Your task to perform on an android device: Show me the best 1080p monitor on Target.com Image 0: 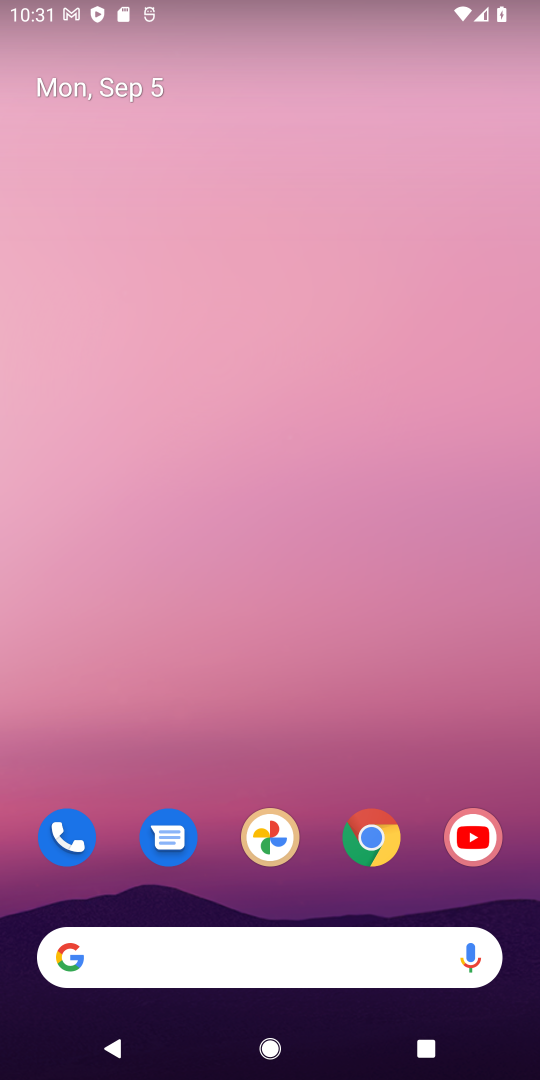
Step 0: drag from (317, 894) to (340, 37)
Your task to perform on an android device: Show me the best 1080p monitor on Target.com Image 1: 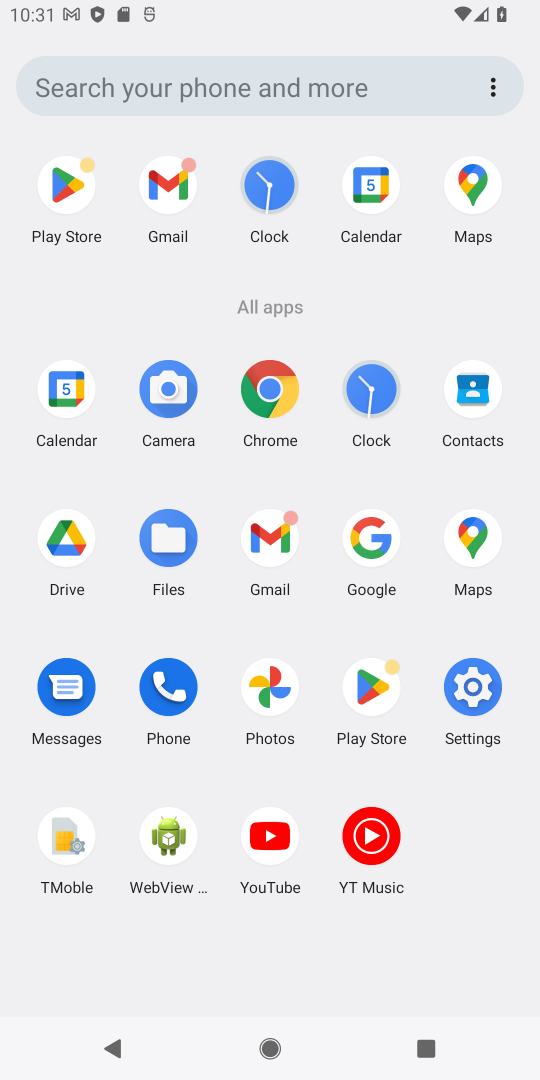
Step 1: click (269, 382)
Your task to perform on an android device: Show me the best 1080p monitor on Target.com Image 2: 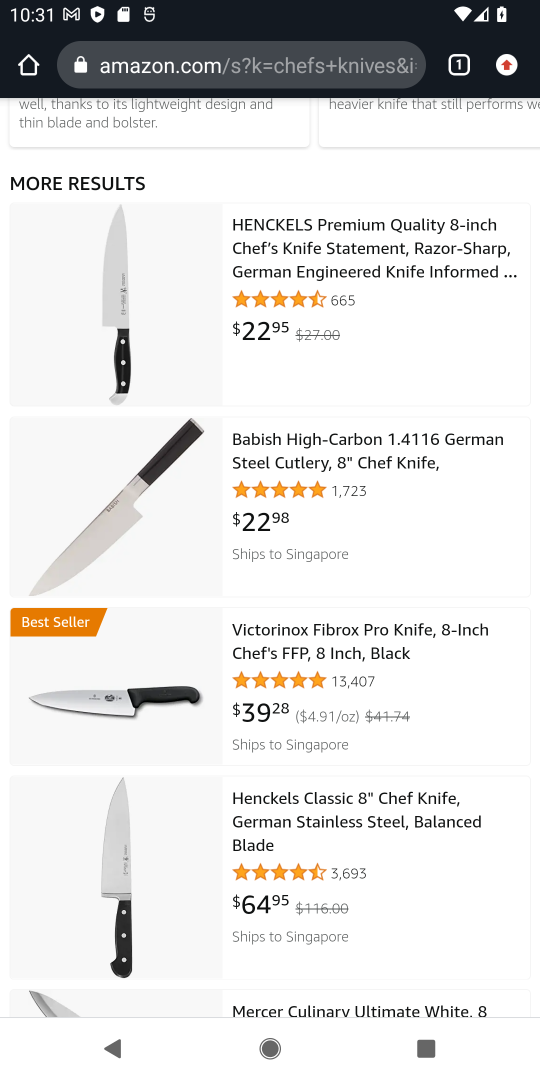
Step 2: click (219, 66)
Your task to perform on an android device: Show me the best 1080p monitor on Target.com Image 3: 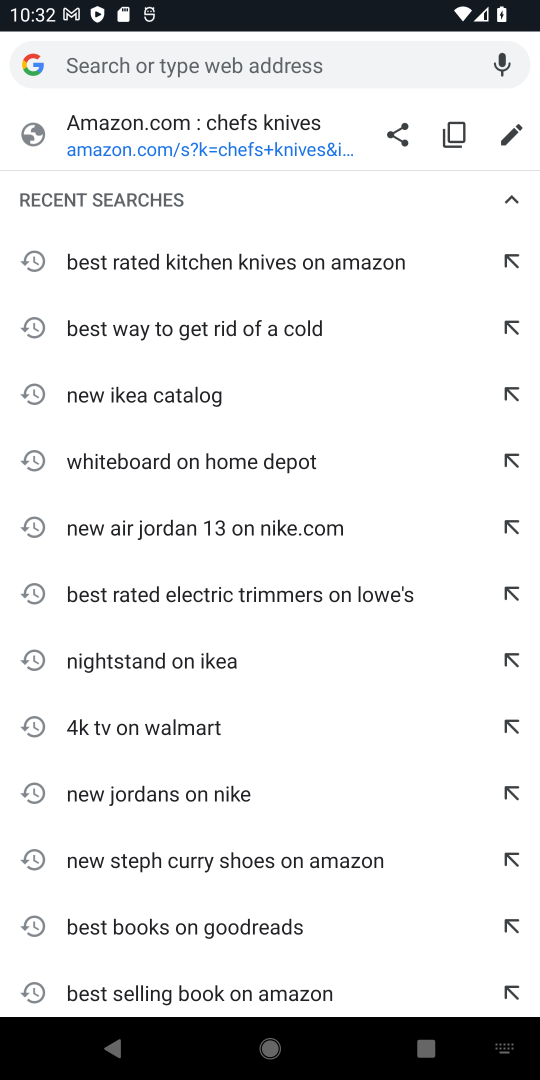
Step 3: type "best 1080p monitor on Target.com"
Your task to perform on an android device: Show me the best 1080p monitor on Target.com Image 4: 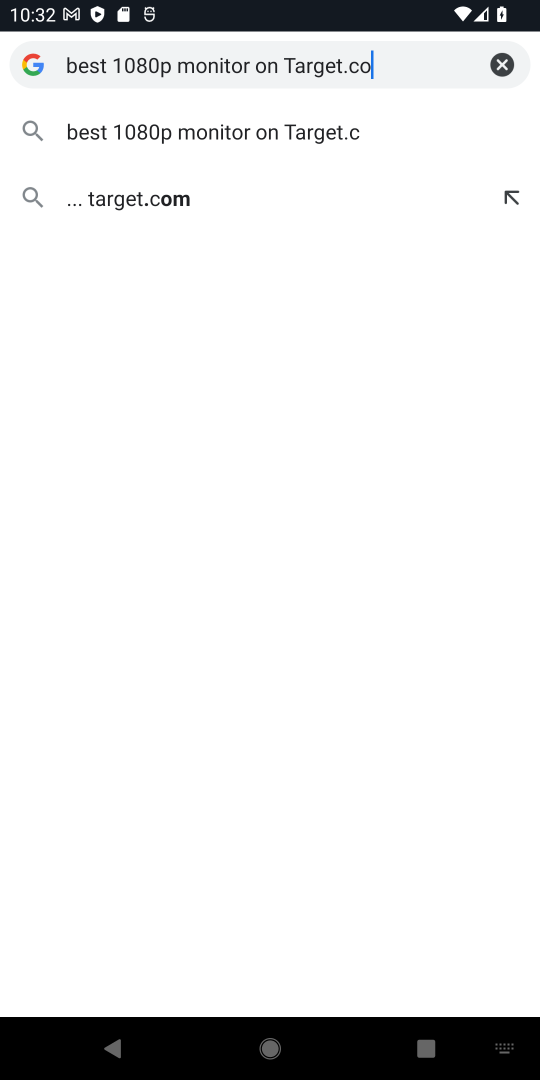
Step 4: type ""
Your task to perform on an android device: Show me the best 1080p monitor on Target.com Image 5: 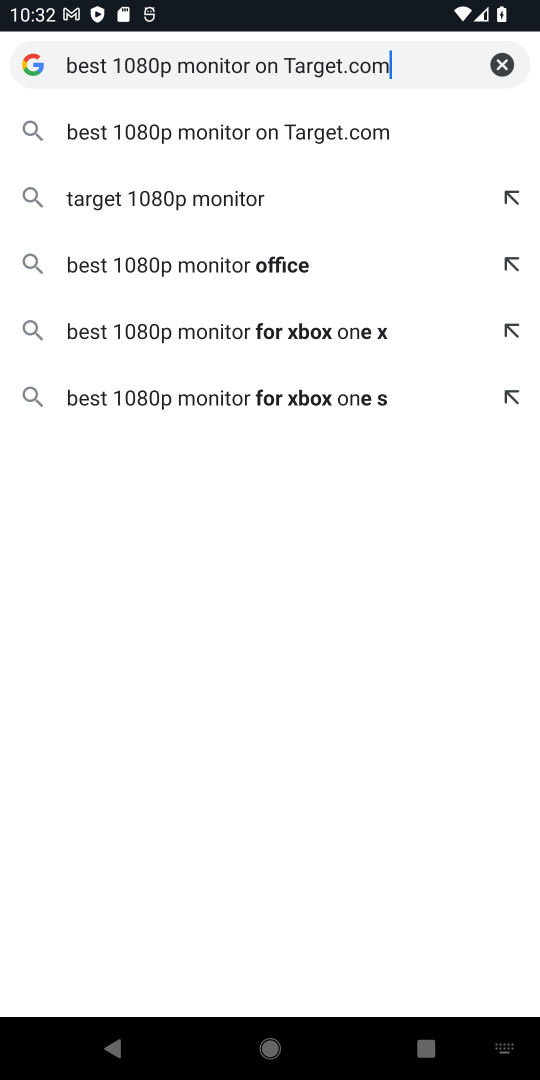
Step 5: click (284, 148)
Your task to perform on an android device: Show me the best 1080p monitor on Target.com Image 6: 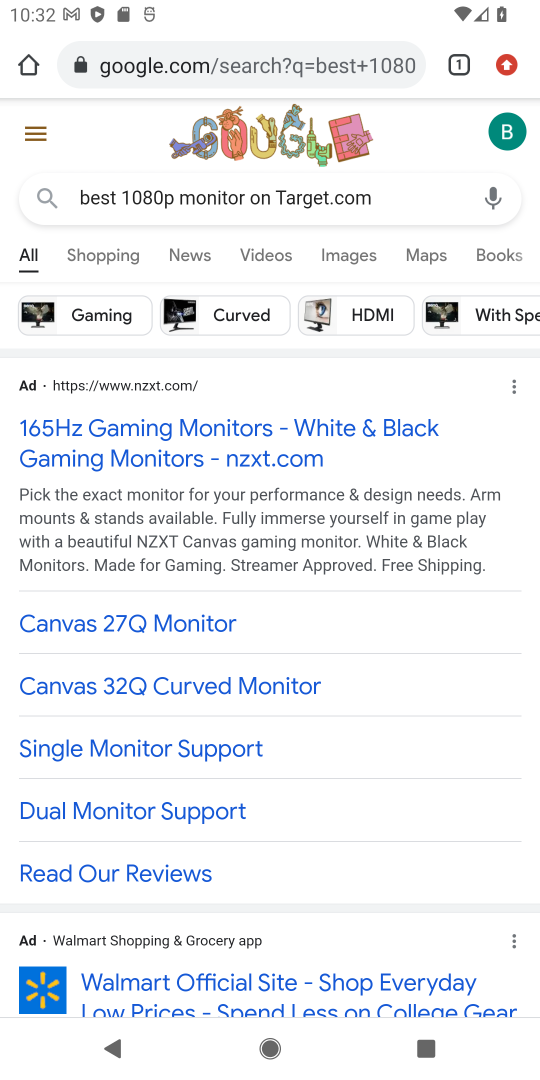
Step 6: drag from (315, 892) to (305, 281)
Your task to perform on an android device: Show me the best 1080p monitor on Target.com Image 7: 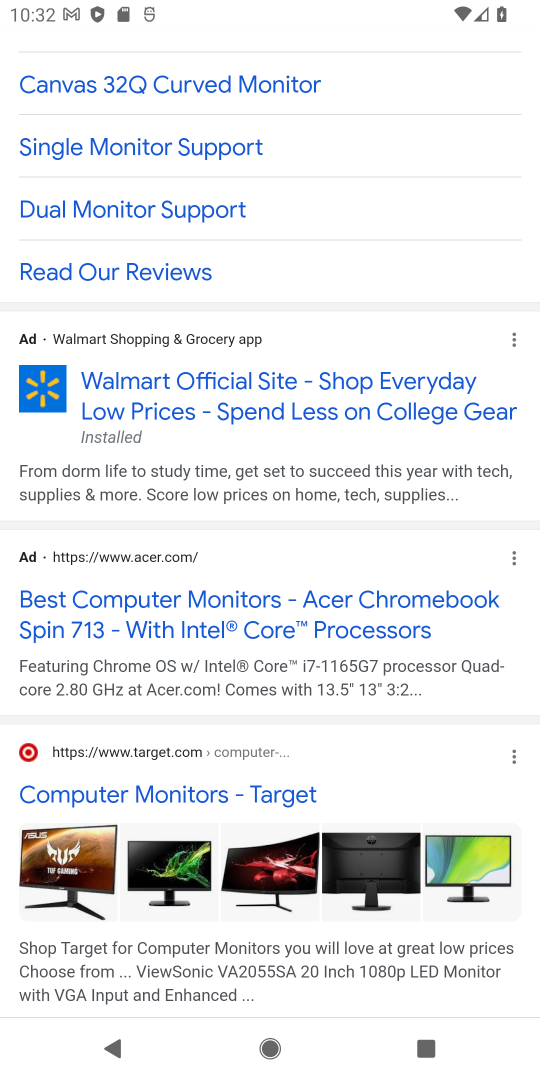
Step 7: drag from (265, 788) to (228, 181)
Your task to perform on an android device: Show me the best 1080p monitor on Target.com Image 8: 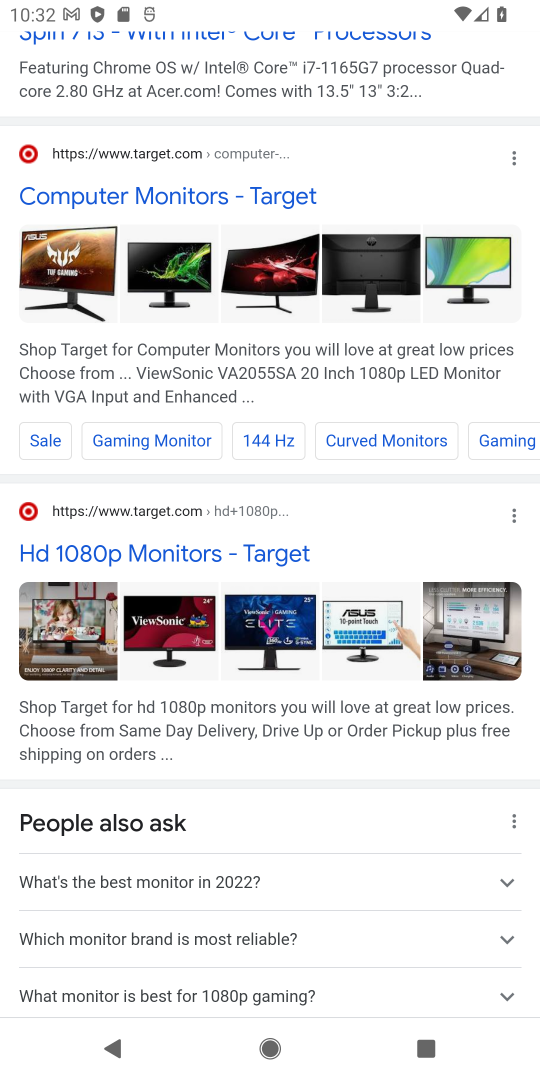
Step 8: drag from (279, 822) to (289, 364)
Your task to perform on an android device: Show me the best 1080p monitor on Target.com Image 9: 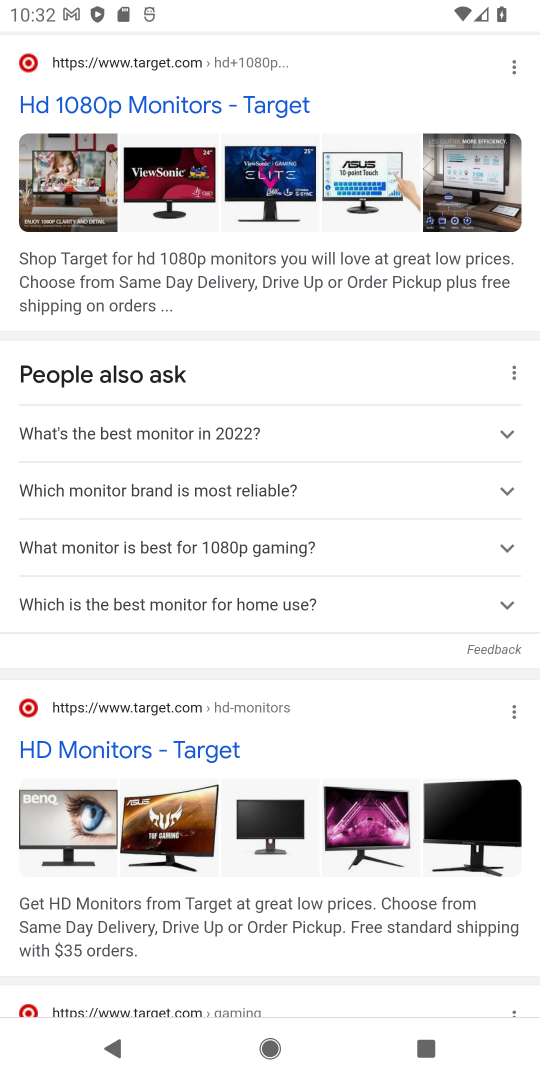
Step 9: drag from (272, 903) to (327, 172)
Your task to perform on an android device: Show me the best 1080p monitor on Target.com Image 10: 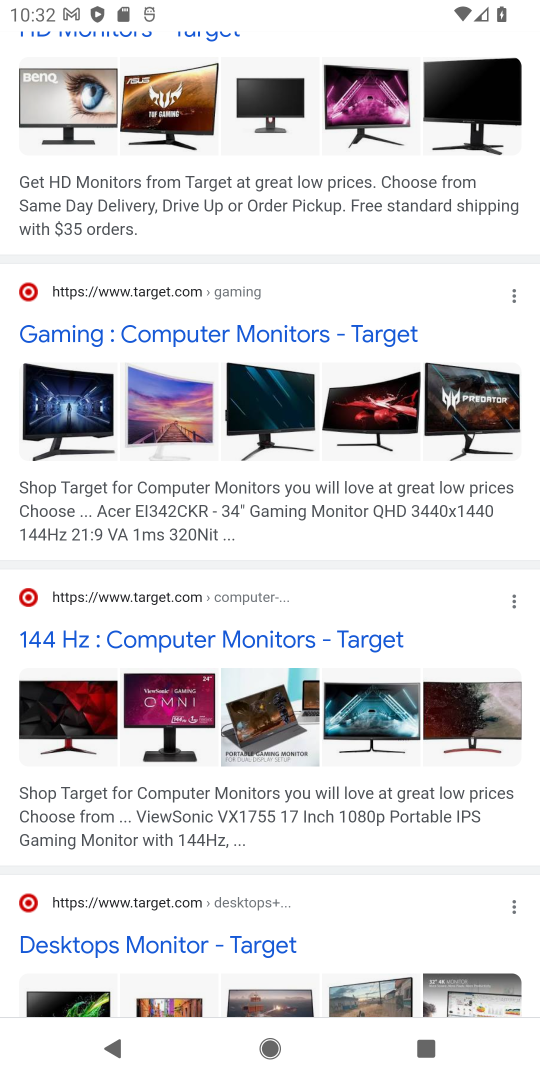
Step 10: drag from (251, 316) to (294, 730)
Your task to perform on an android device: Show me the best 1080p monitor on Target.com Image 11: 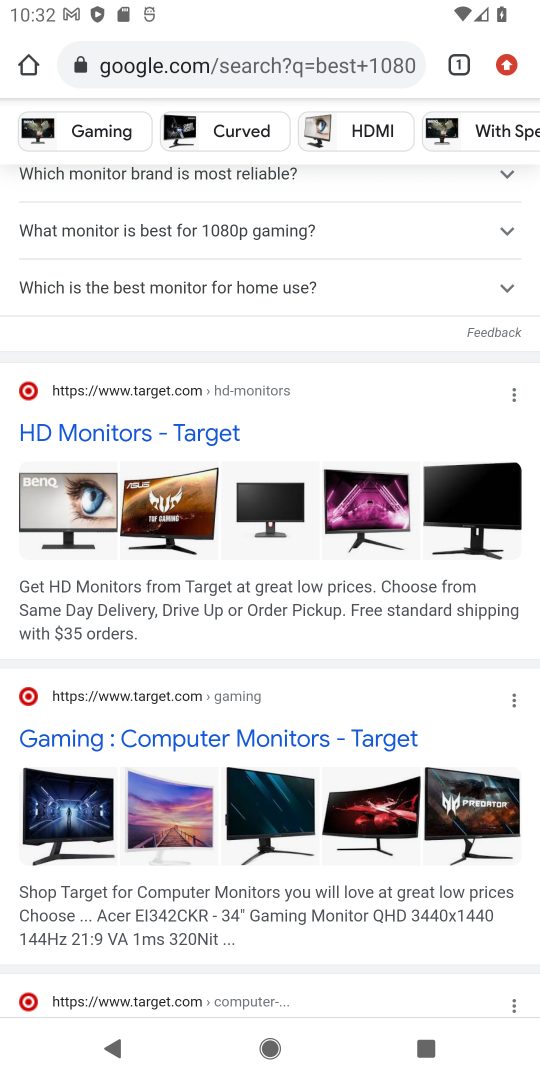
Step 11: click (206, 430)
Your task to perform on an android device: Show me the best 1080p monitor on Target.com Image 12: 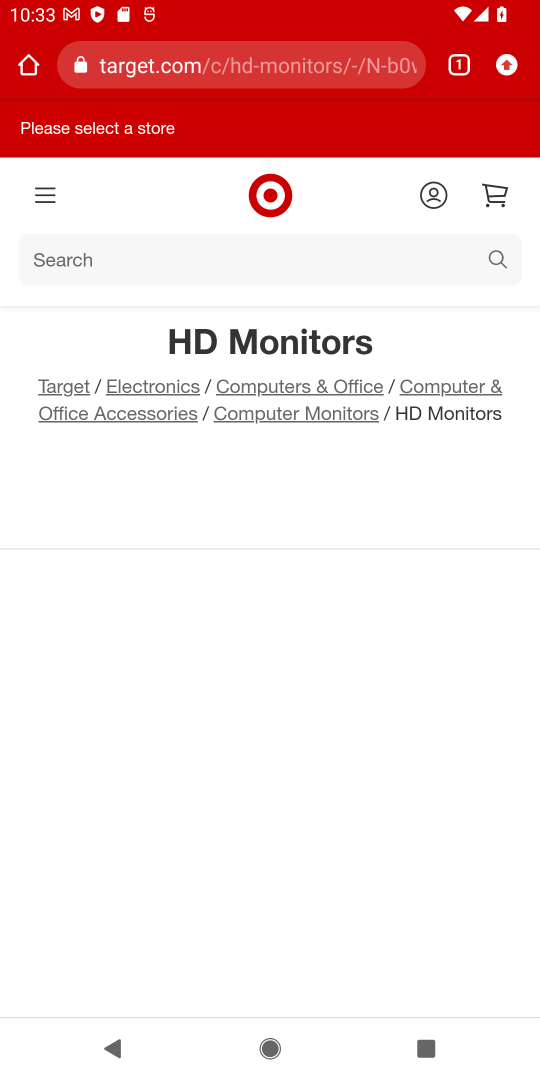
Step 12: task complete